Your task to perform on an android device: toggle javascript in the chrome app Image 0: 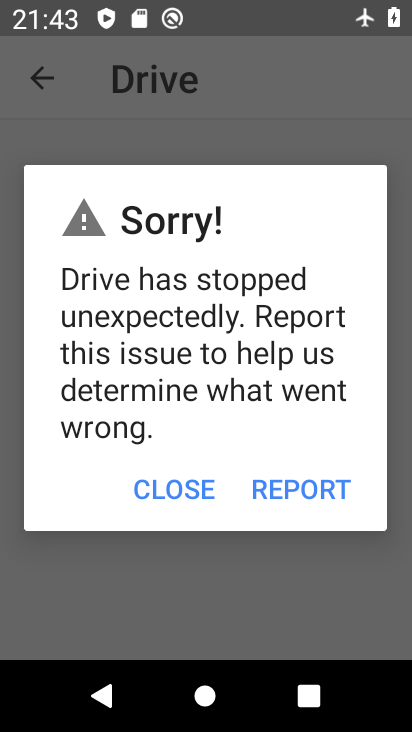
Step 0: press home button
Your task to perform on an android device: toggle javascript in the chrome app Image 1: 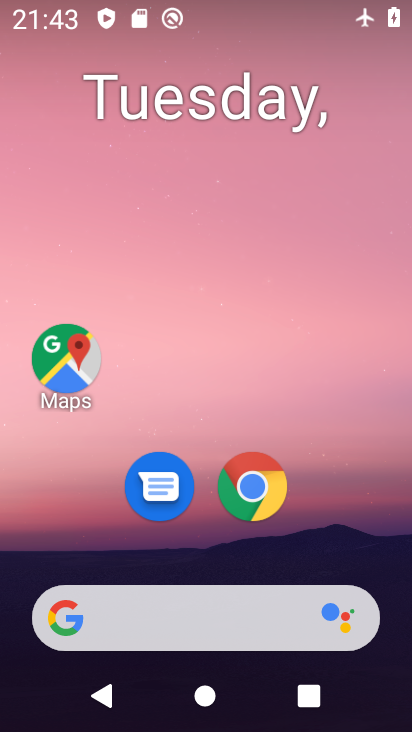
Step 1: drag from (356, 544) to (348, 180)
Your task to perform on an android device: toggle javascript in the chrome app Image 2: 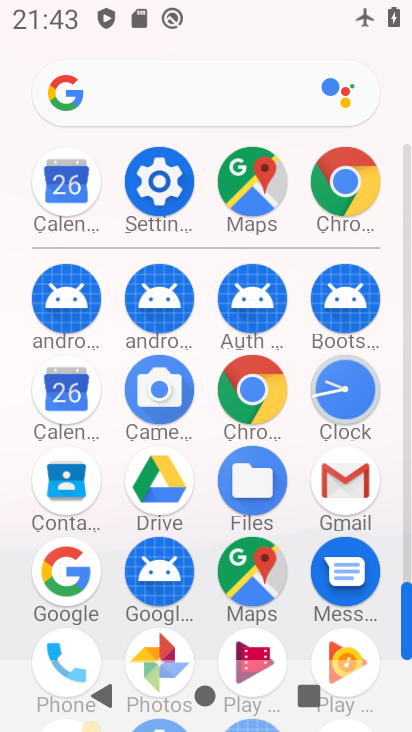
Step 2: click (246, 397)
Your task to perform on an android device: toggle javascript in the chrome app Image 3: 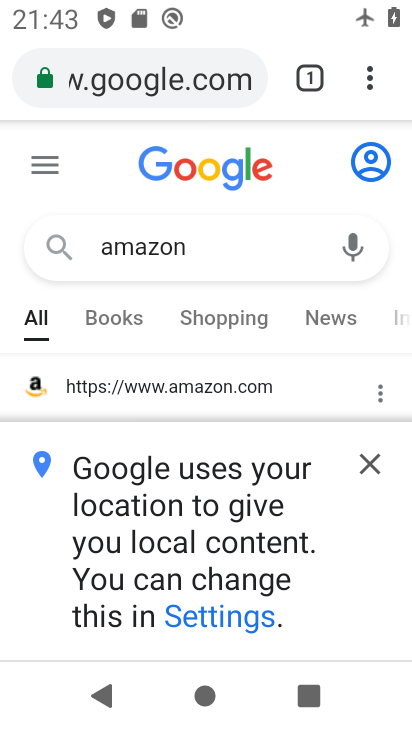
Step 3: click (368, 89)
Your task to perform on an android device: toggle javascript in the chrome app Image 4: 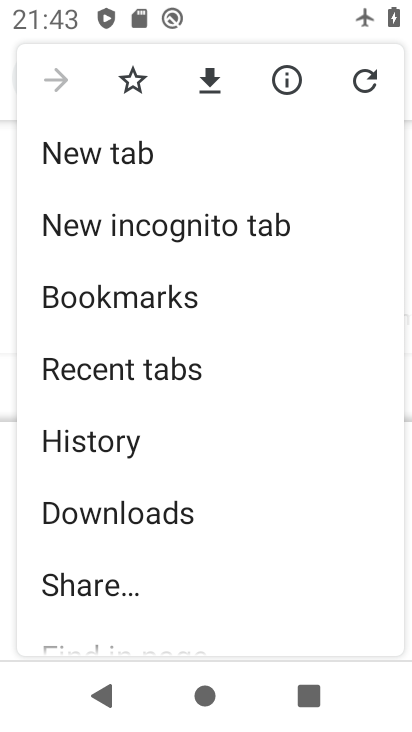
Step 4: drag from (310, 495) to (313, 334)
Your task to perform on an android device: toggle javascript in the chrome app Image 5: 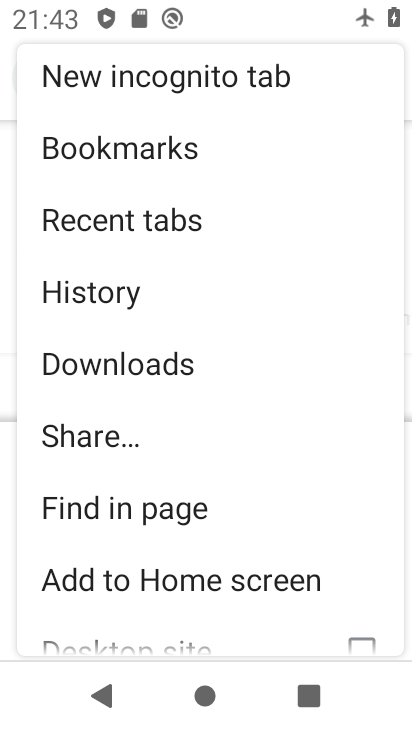
Step 5: drag from (303, 474) to (298, 351)
Your task to perform on an android device: toggle javascript in the chrome app Image 6: 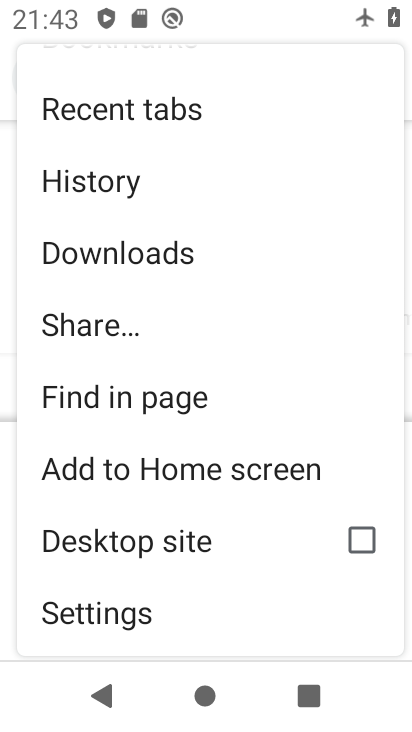
Step 6: drag from (278, 538) to (279, 430)
Your task to perform on an android device: toggle javascript in the chrome app Image 7: 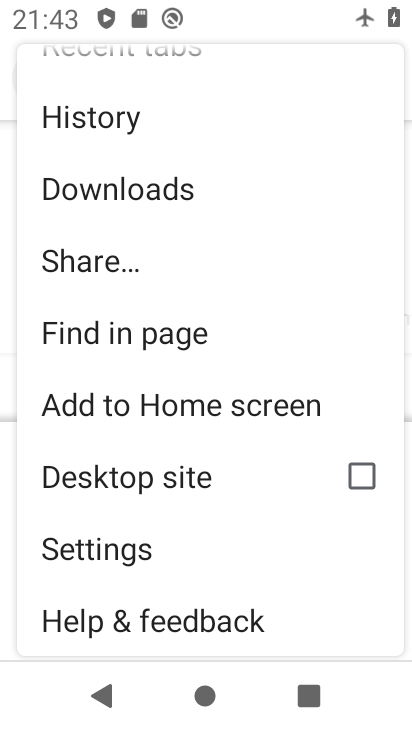
Step 7: click (206, 561)
Your task to perform on an android device: toggle javascript in the chrome app Image 8: 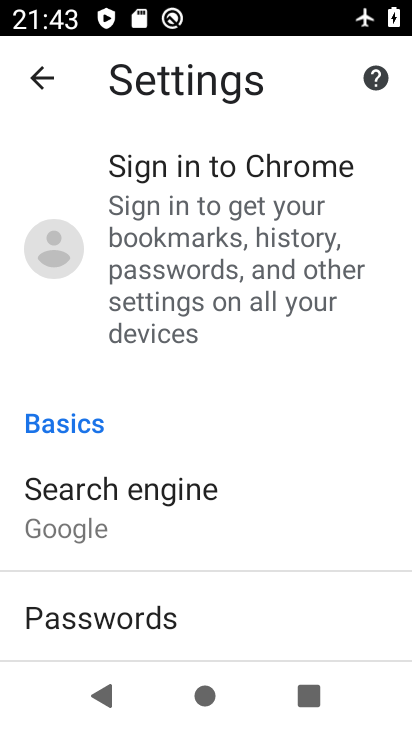
Step 8: drag from (233, 550) to (241, 470)
Your task to perform on an android device: toggle javascript in the chrome app Image 9: 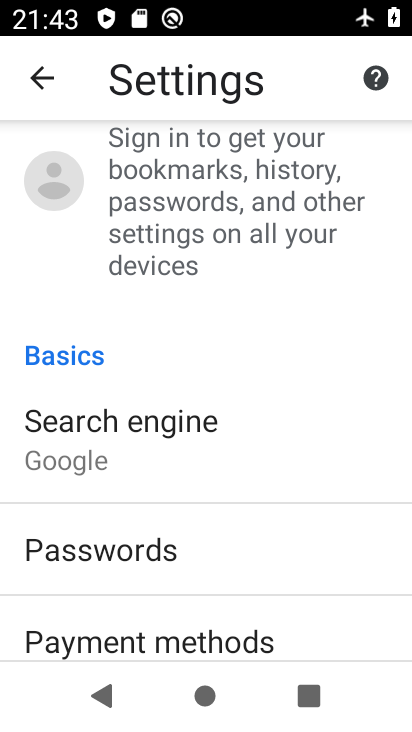
Step 9: drag from (252, 534) to (253, 431)
Your task to perform on an android device: toggle javascript in the chrome app Image 10: 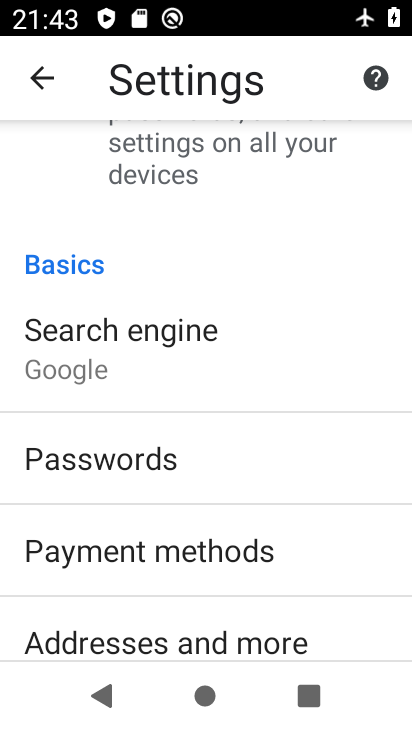
Step 10: drag from (262, 524) to (265, 438)
Your task to perform on an android device: toggle javascript in the chrome app Image 11: 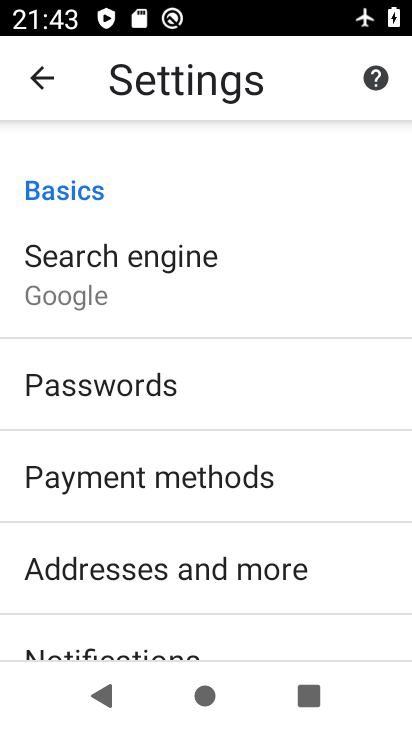
Step 11: drag from (332, 559) to (332, 463)
Your task to perform on an android device: toggle javascript in the chrome app Image 12: 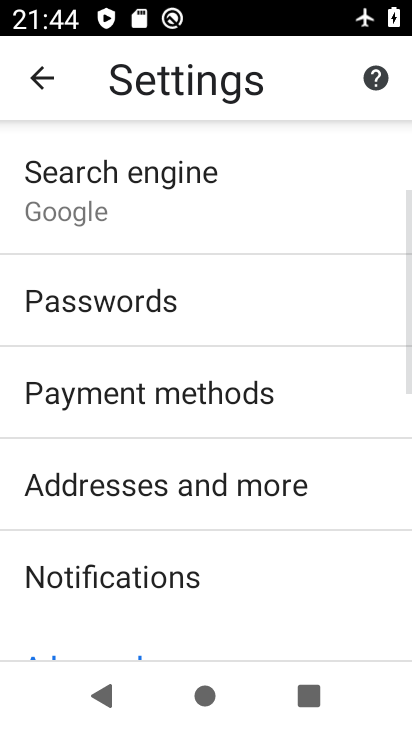
Step 12: drag from (319, 582) to (315, 457)
Your task to perform on an android device: toggle javascript in the chrome app Image 13: 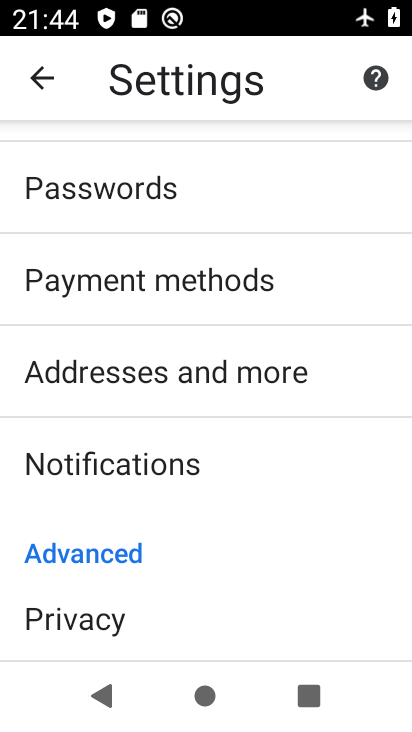
Step 13: drag from (312, 579) to (311, 490)
Your task to perform on an android device: toggle javascript in the chrome app Image 14: 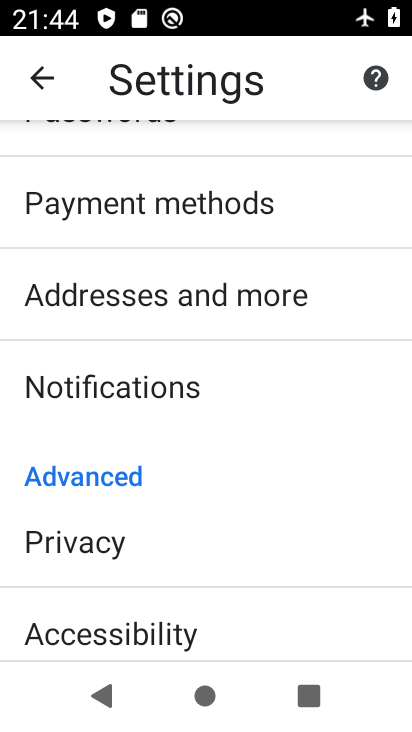
Step 14: drag from (292, 606) to (290, 492)
Your task to perform on an android device: toggle javascript in the chrome app Image 15: 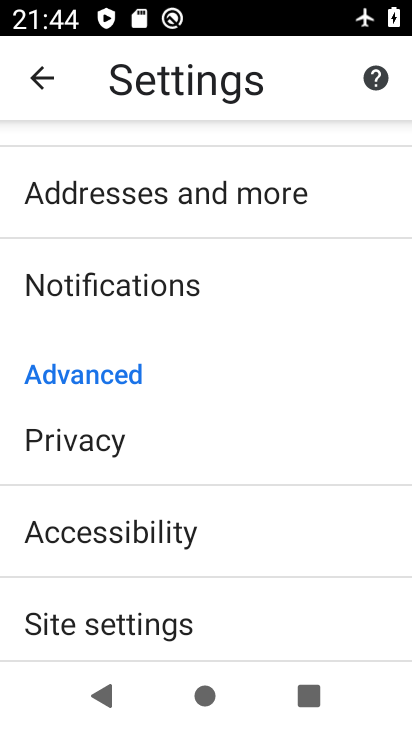
Step 15: drag from (294, 613) to (300, 433)
Your task to perform on an android device: toggle javascript in the chrome app Image 16: 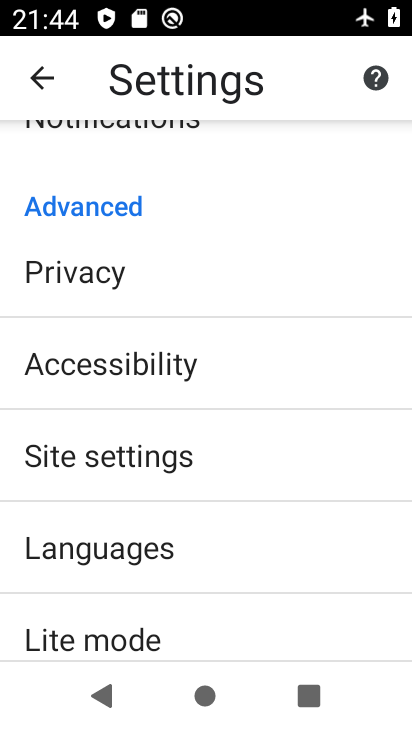
Step 16: click (300, 476)
Your task to perform on an android device: toggle javascript in the chrome app Image 17: 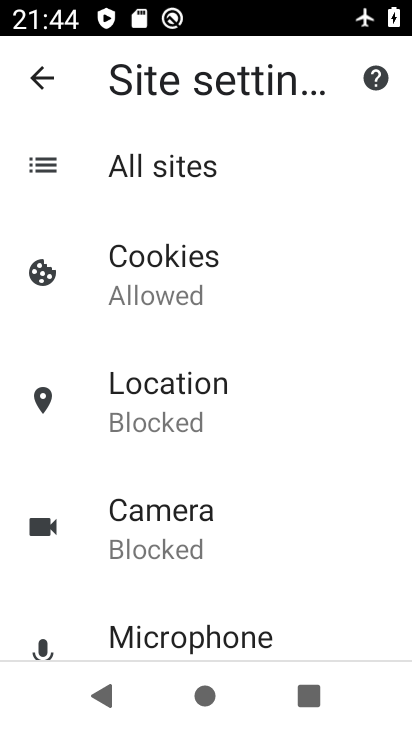
Step 17: drag from (338, 575) to (333, 508)
Your task to perform on an android device: toggle javascript in the chrome app Image 18: 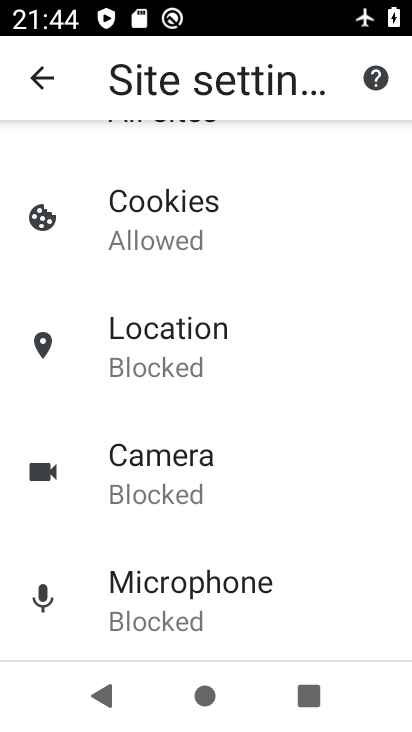
Step 18: drag from (347, 561) to (356, 499)
Your task to perform on an android device: toggle javascript in the chrome app Image 19: 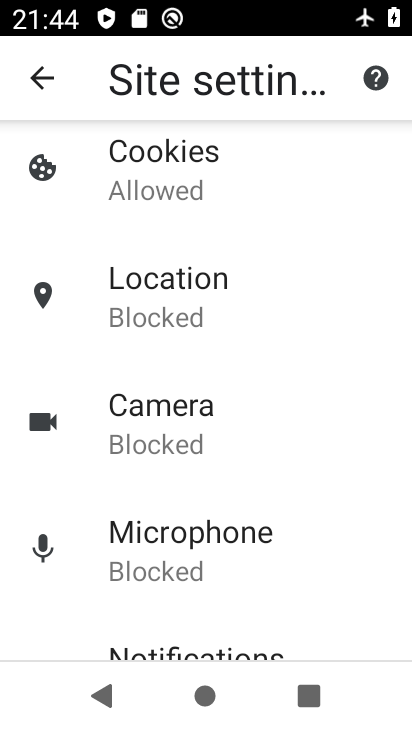
Step 19: drag from (321, 583) to (324, 502)
Your task to perform on an android device: toggle javascript in the chrome app Image 20: 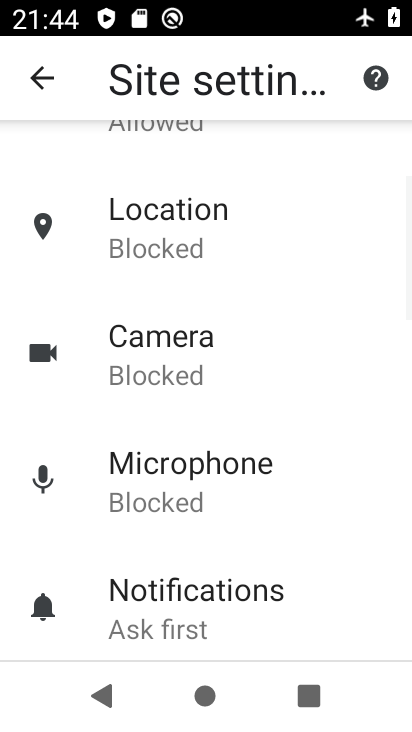
Step 20: drag from (332, 589) to (325, 482)
Your task to perform on an android device: toggle javascript in the chrome app Image 21: 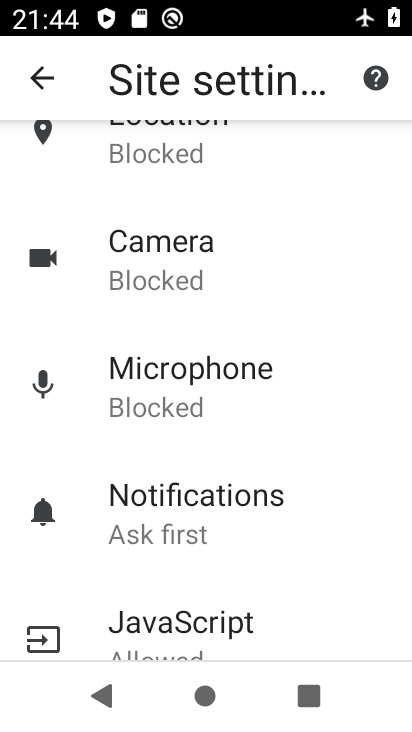
Step 21: drag from (330, 563) to (331, 341)
Your task to perform on an android device: toggle javascript in the chrome app Image 22: 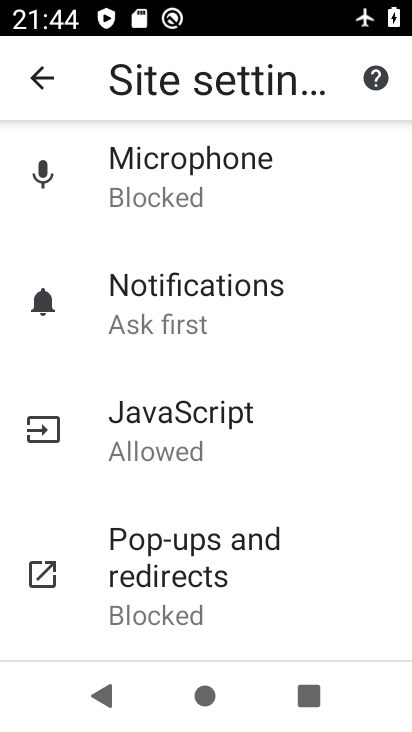
Step 22: click (284, 433)
Your task to perform on an android device: toggle javascript in the chrome app Image 23: 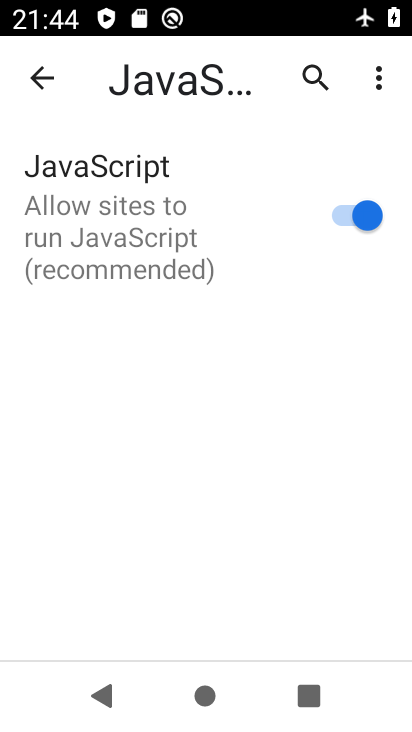
Step 23: click (355, 218)
Your task to perform on an android device: toggle javascript in the chrome app Image 24: 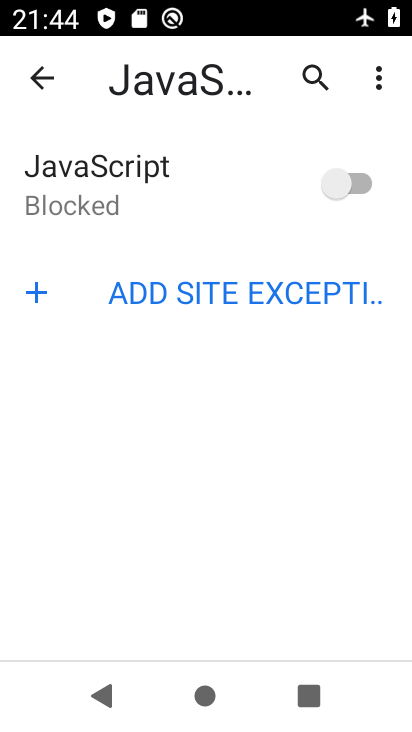
Step 24: task complete